Your task to perform on an android device: Check the settings for the Google Photos app Image 0: 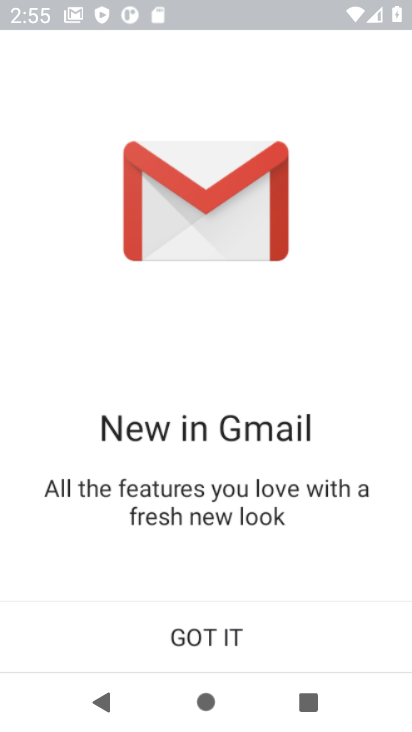
Step 0: press home button
Your task to perform on an android device: Check the settings for the Google Photos app Image 1: 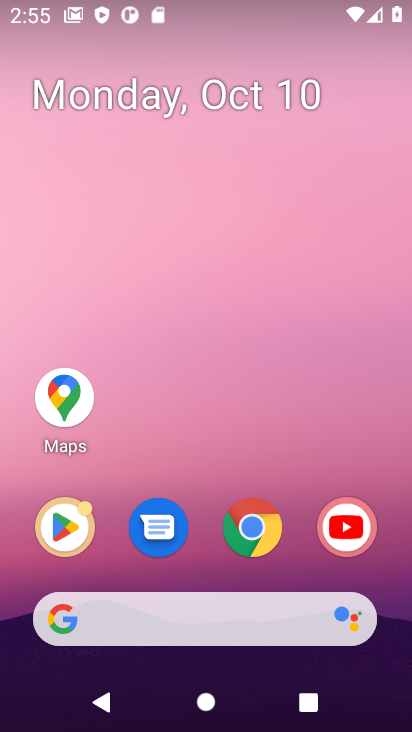
Step 1: drag from (391, 550) to (376, 136)
Your task to perform on an android device: Check the settings for the Google Photos app Image 2: 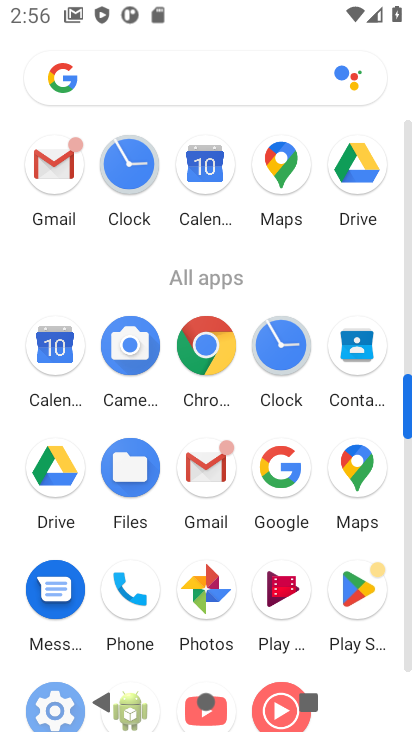
Step 2: click (206, 588)
Your task to perform on an android device: Check the settings for the Google Photos app Image 3: 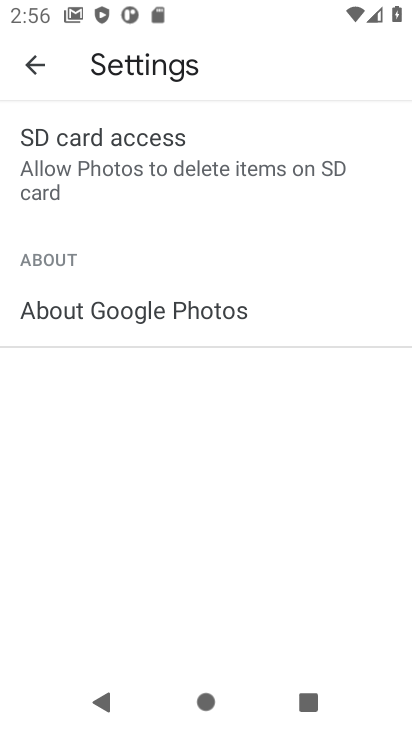
Step 3: press back button
Your task to perform on an android device: Check the settings for the Google Photos app Image 4: 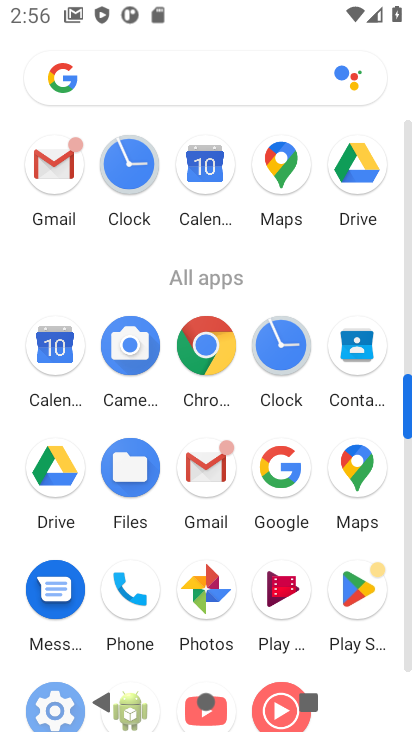
Step 4: click (218, 612)
Your task to perform on an android device: Check the settings for the Google Photos app Image 5: 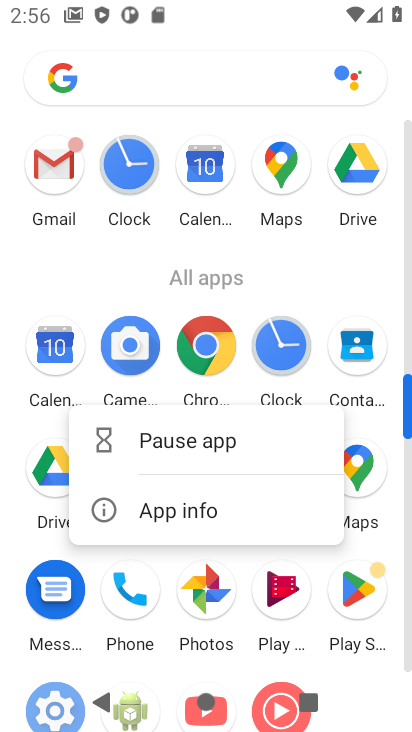
Step 5: click (218, 612)
Your task to perform on an android device: Check the settings for the Google Photos app Image 6: 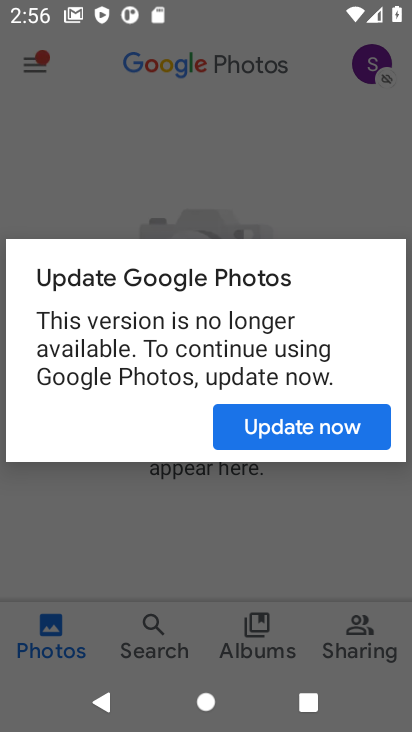
Step 6: click (337, 436)
Your task to perform on an android device: Check the settings for the Google Photos app Image 7: 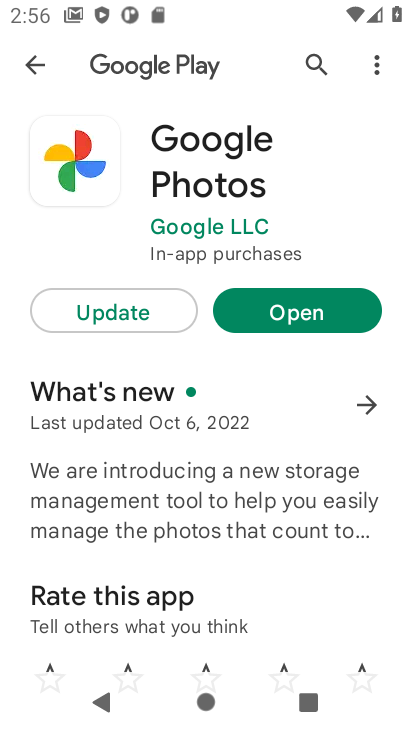
Step 7: click (148, 312)
Your task to perform on an android device: Check the settings for the Google Photos app Image 8: 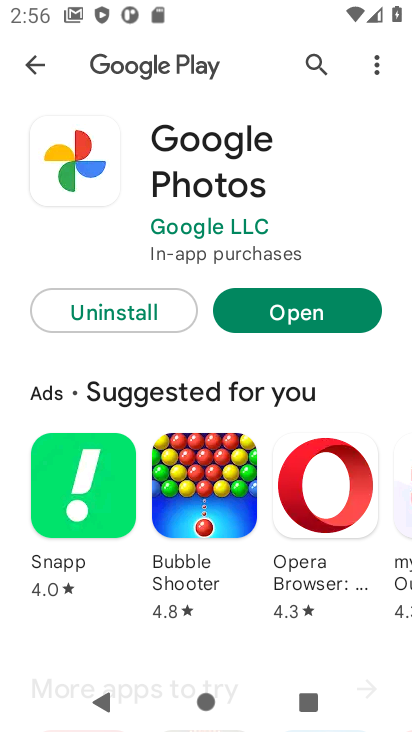
Step 8: click (287, 320)
Your task to perform on an android device: Check the settings for the Google Photos app Image 9: 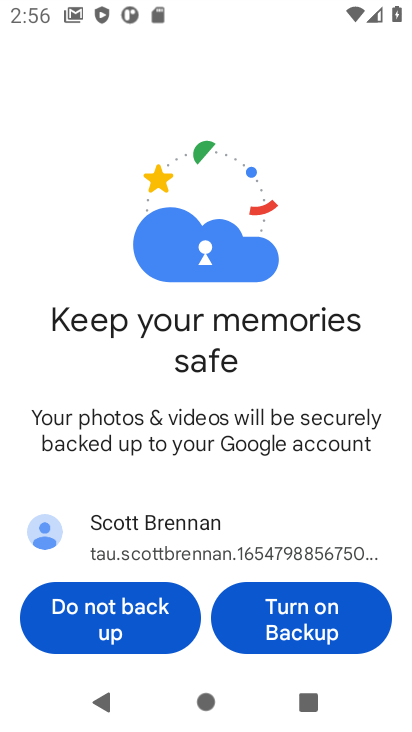
Step 9: click (146, 630)
Your task to perform on an android device: Check the settings for the Google Photos app Image 10: 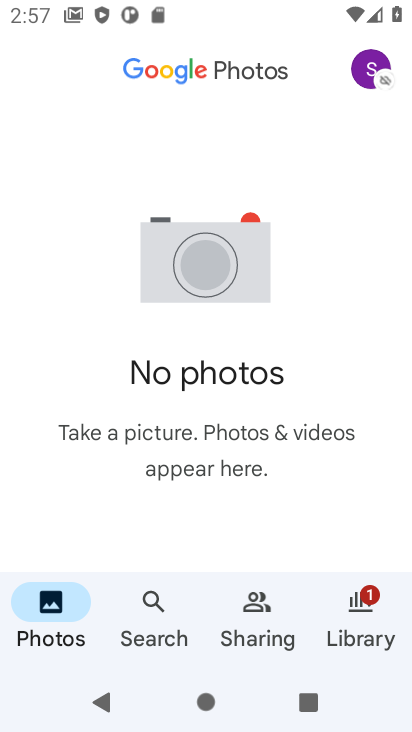
Step 10: click (370, 69)
Your task to perform on an android device: Check the settings for the Google Photos app Image 11: 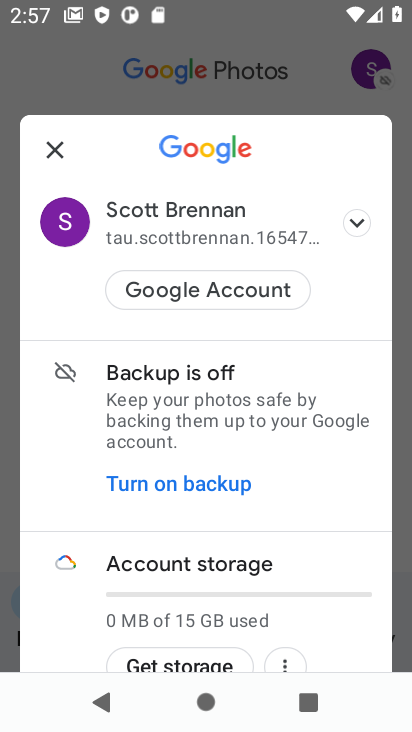
Step 11: drag from (321, 452) to (299, 235)
Your task to perform on an android device: Check the settings for the Google Photos app Image 12: 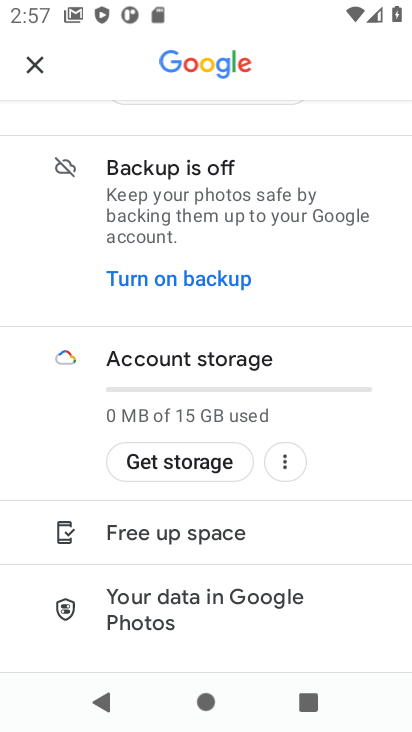
Step 12: drag from (269, 560) to (297, 296)
Your task to perform on an android device: Check the settings for the Google Photos app Image 13: 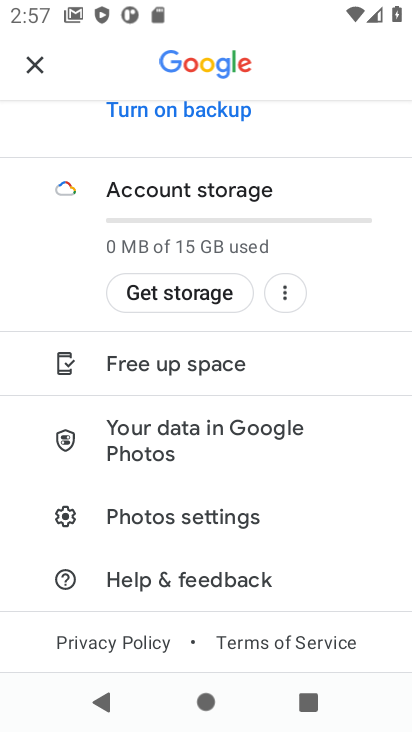
Step 13: click (242, 530)
Your task to perform on an android device: Check the settings for the Google Photos app Image 14: 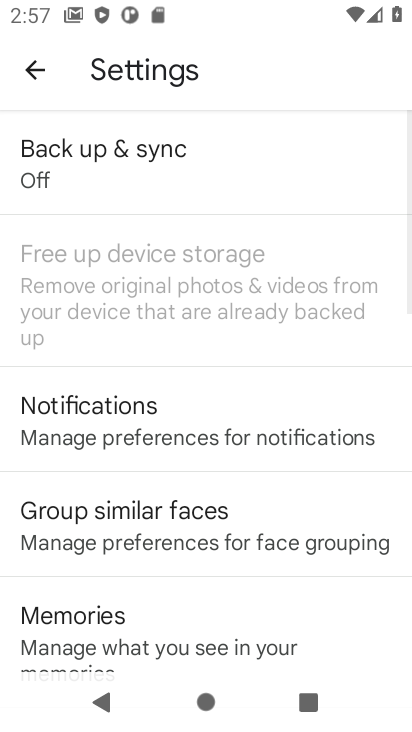
Step 14: task complete